Your task to perform on an android device: Open Reddit.com Image 0: 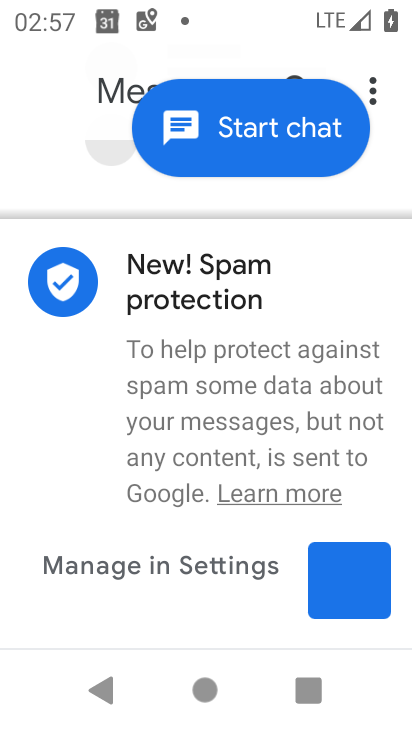
Step 0: press home button
Your task to perform on an android device: Open Reddit.com Image 1: 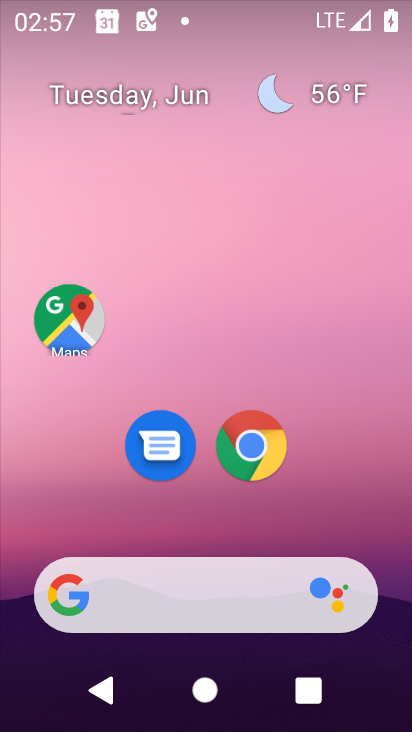
Step 1: click (217, 592)
Your task to perform on an android device: Open Reddit.com Image 2: 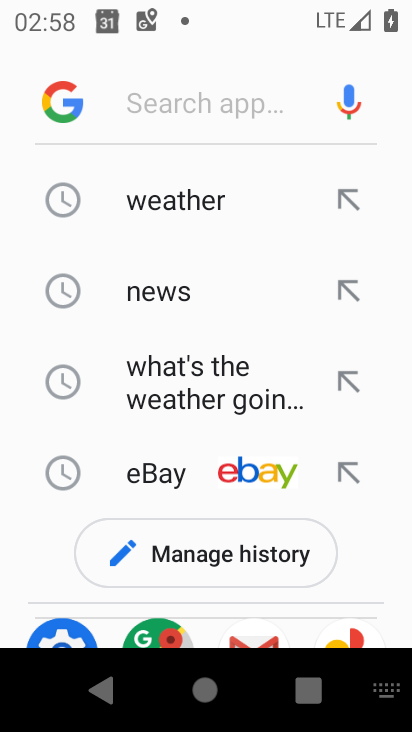
Step 2: type "reddit"
Your task to perform on an android device: Open Reddit.com Image 3: 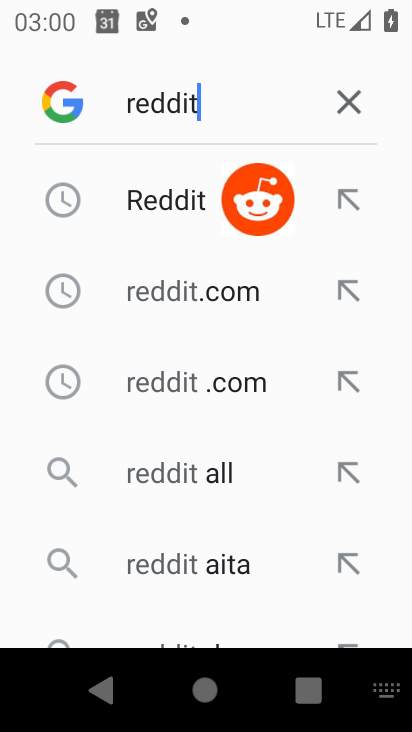
Step 3: click (201, 221)
Your task to perform on an android device: Open Reddit.com Image 4: 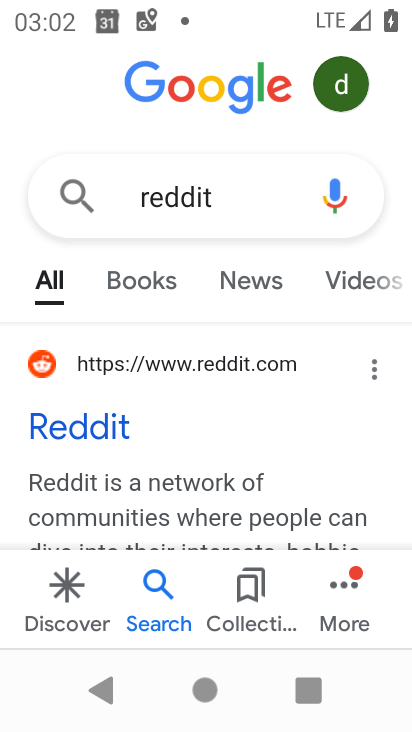
Step 4: click (209, 370)
Your task to perform on an android device: Open Reddit.com Image 5: 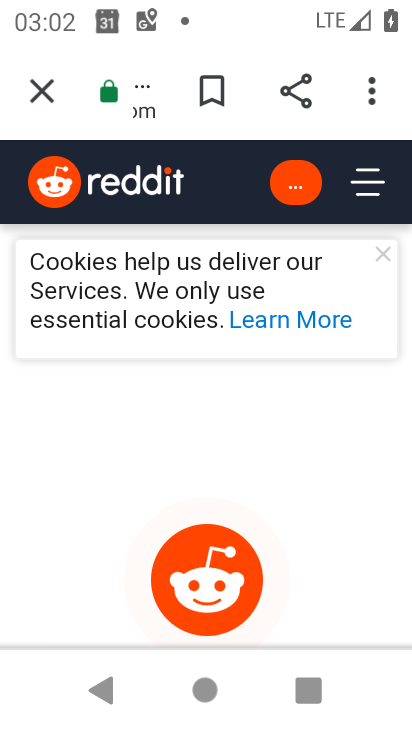
Step 5: task complete